Your task to perform on an android device: Go to Maps Image 0: 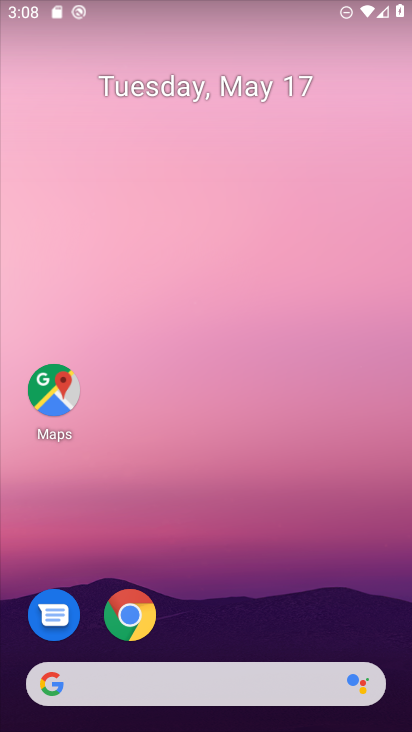
Step 0: drag from (209, 727) to (202, 320)
Your task to perform on an android device: Go to Maps Image 1: 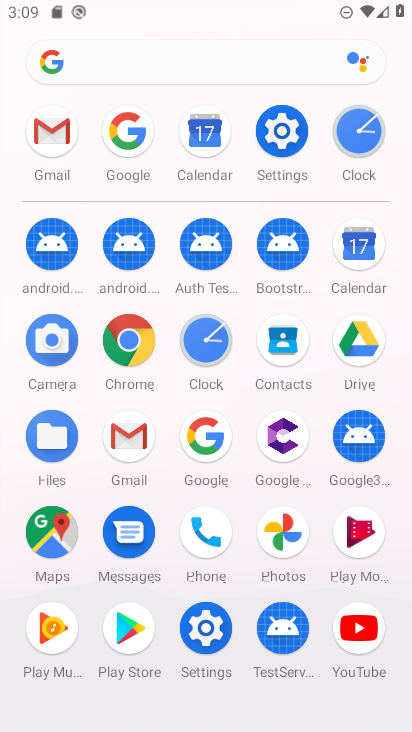
Step 1: click (53, 536)
Your task to perform on an android device: Go to Maps Image 2: 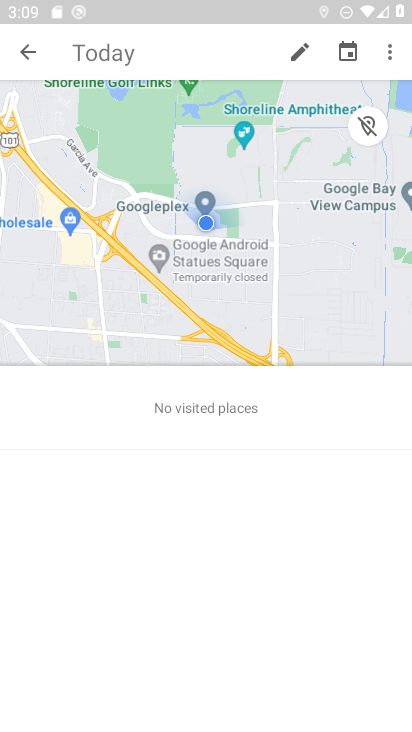
Step 2: task complete